Your task to perform on an android device: Play some music on YouTube Image 0: 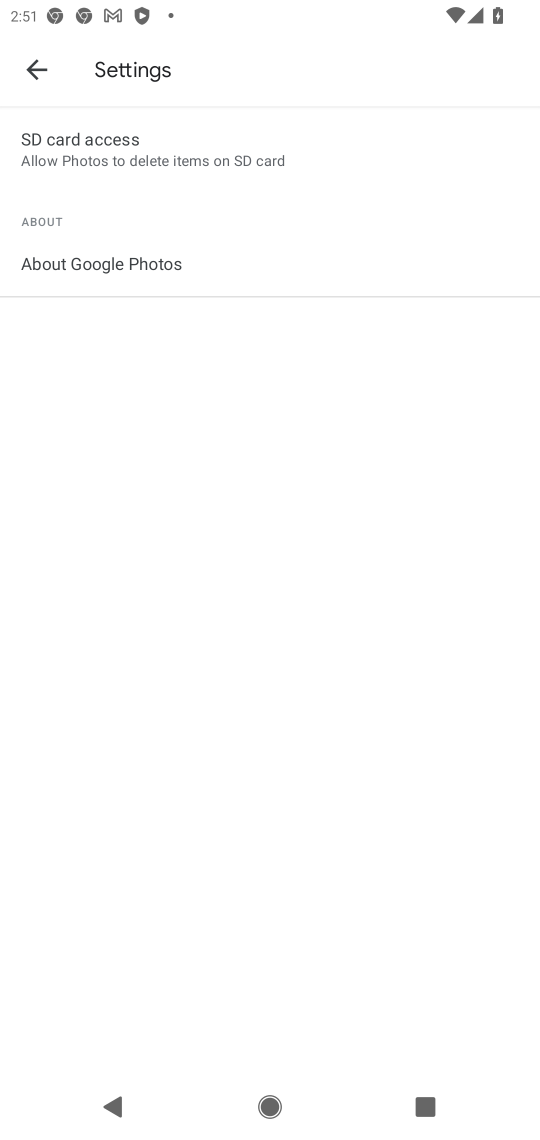
Step 0: press home button
Your task to perform on an android device: Play some music on YouTube Image 1: 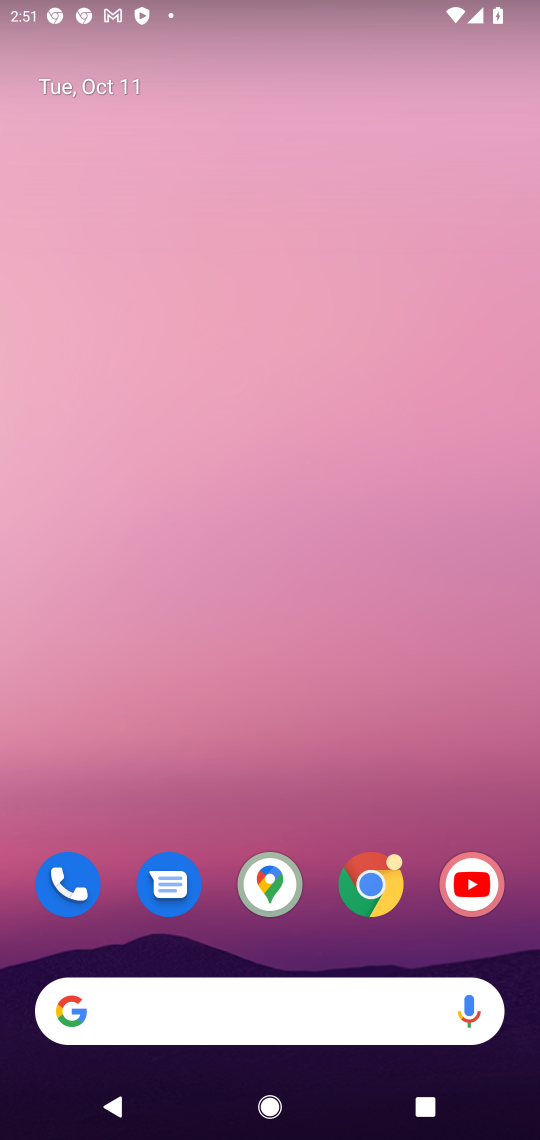
Step 1: click (470, 886)
Your task to perform on an android device: Play some music on YouTube Image 2: 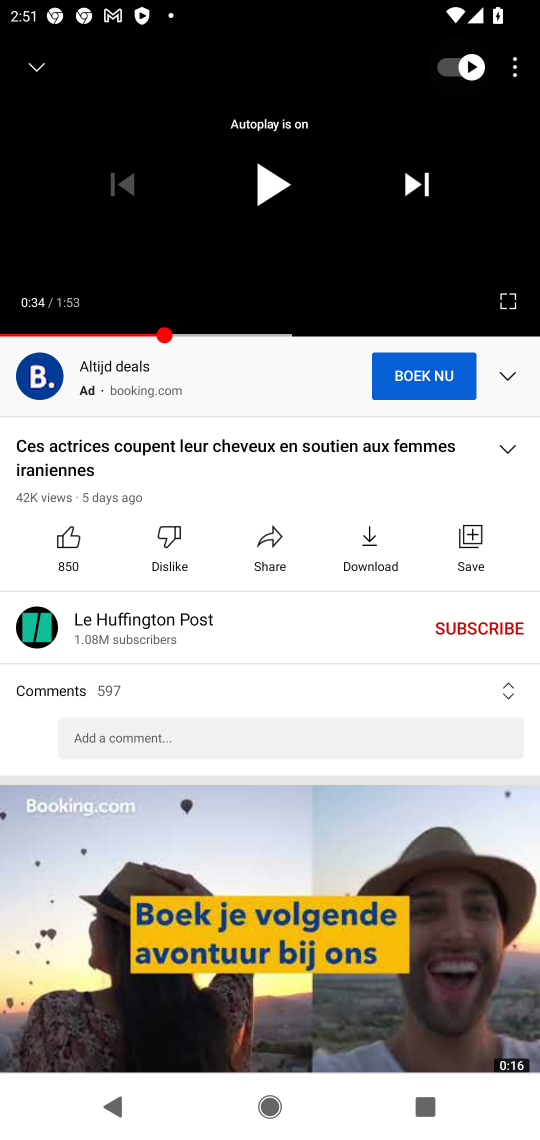
Step 2: press back button
Your task to perform on an android device: Play some music on YouTube Image 3: 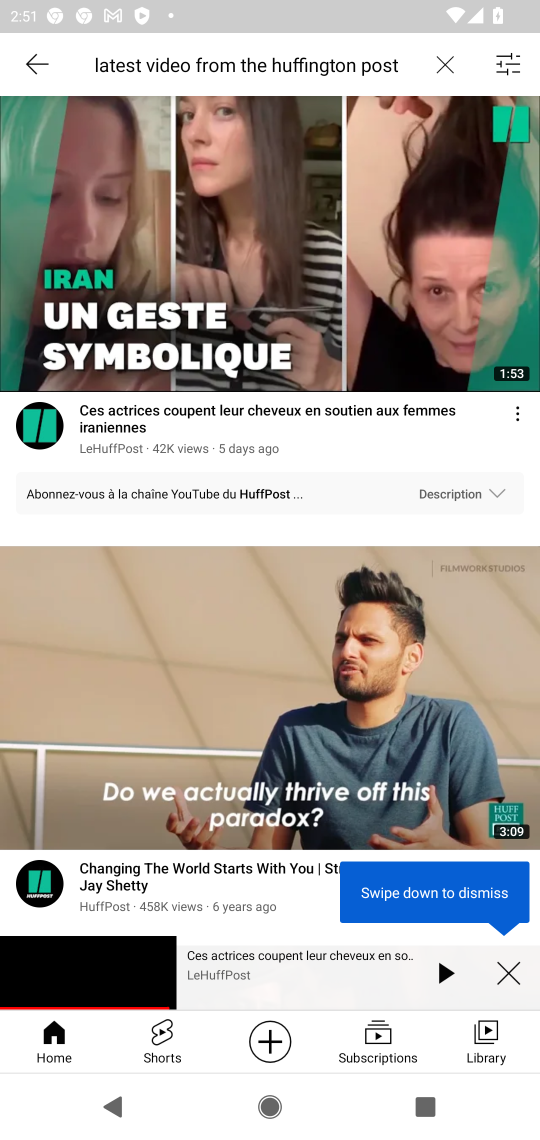
Step 3: click (507, 983)
Your task to perform on an android device: Play some music on YouTube Image 4: 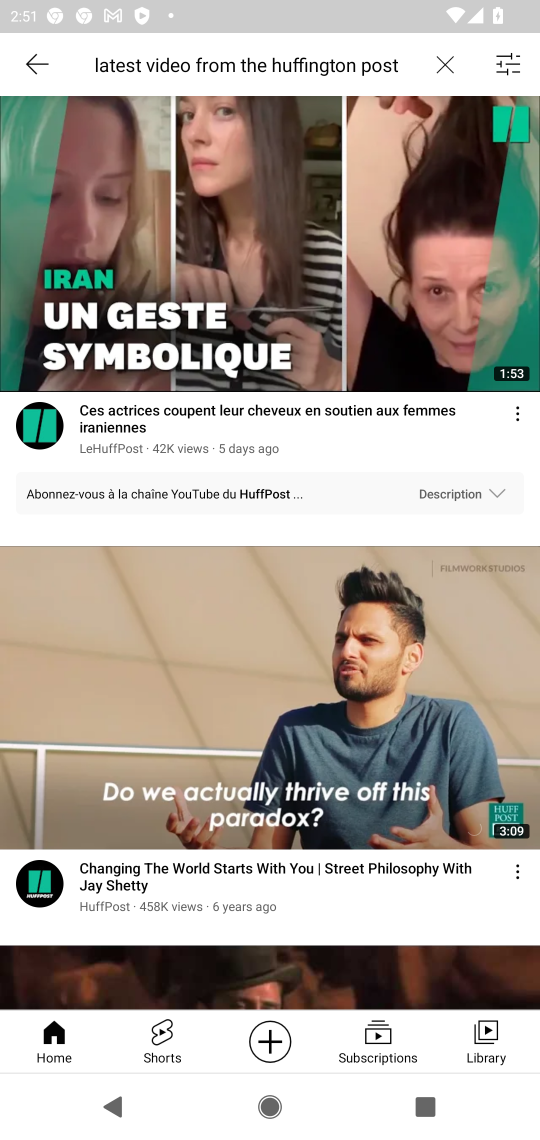
Step 4: click (450, 62)
Your task to perform on an android device: Play some music on YouTube Image 5: 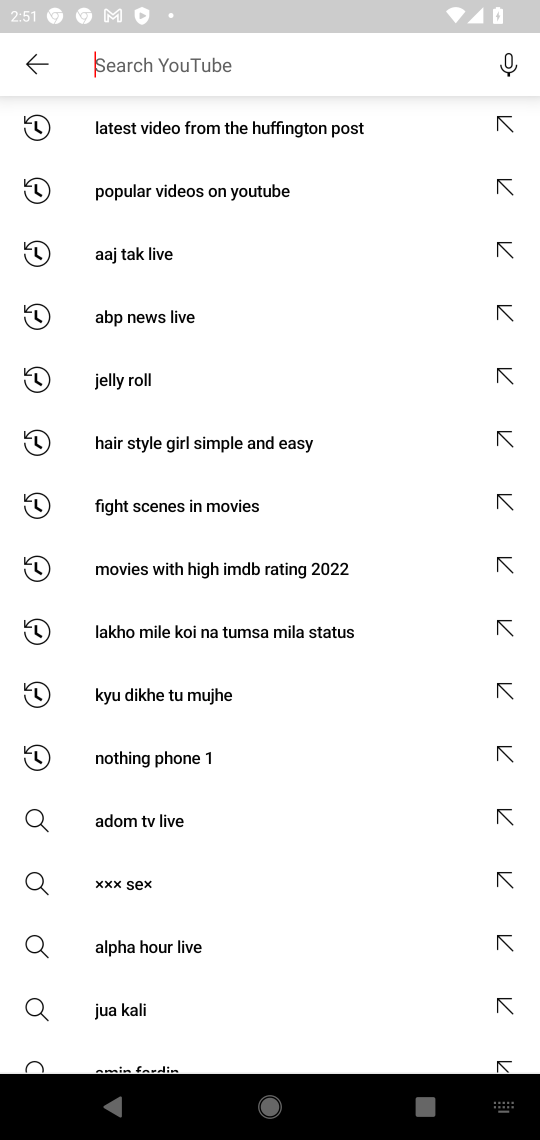
Step 5: click (384, 69)
Your task to perform on an android device: Play some music on YouTube Image 6: 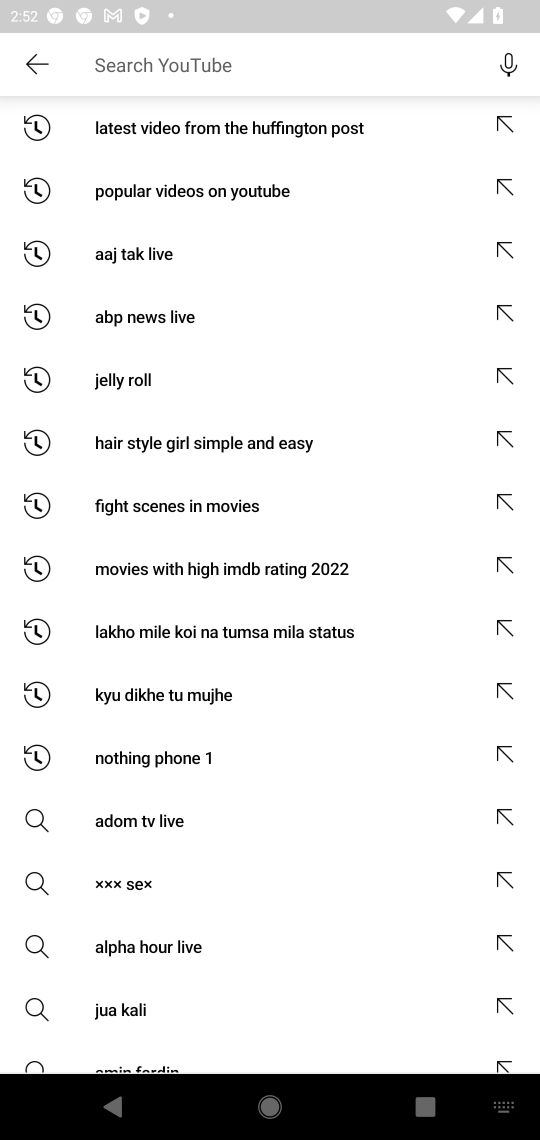
Step 6: type "some music"
Your task to perform on an android device: Play some music on YouTube Image 7: 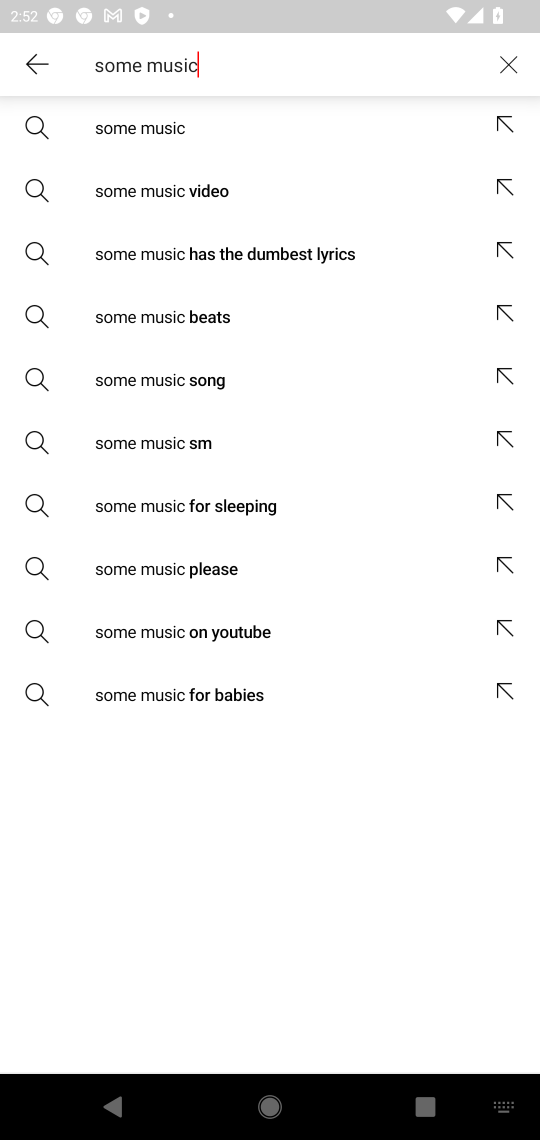
Step 7: click (161, 126)
Your task to perform on an android device: Play some music on YouTube Image 8: 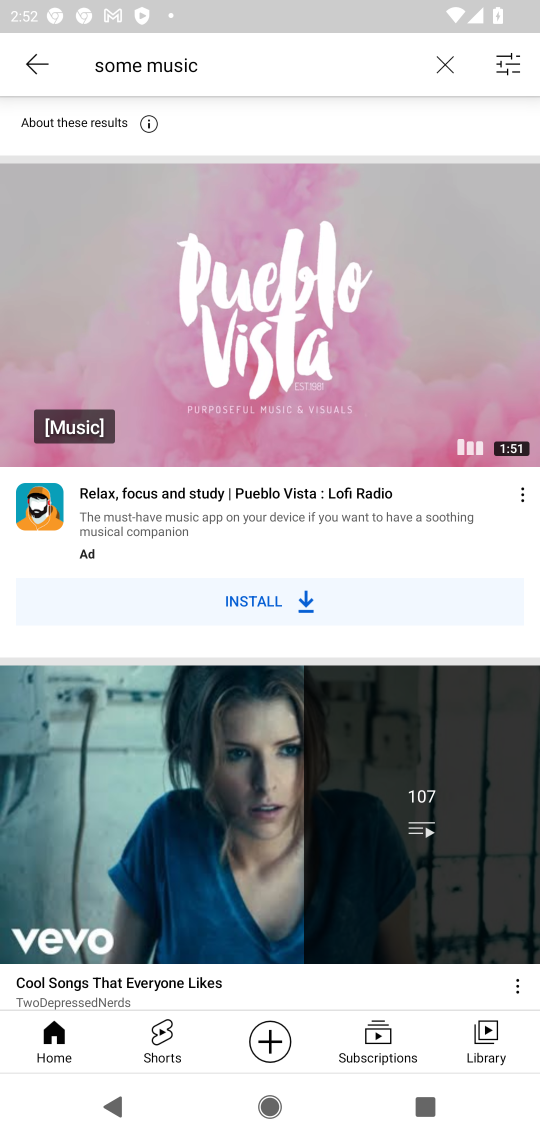
Step 8: drag from (135, 826) to (369, 425)
Your task to perform on an android device: Play some music on YouTube Image 9: 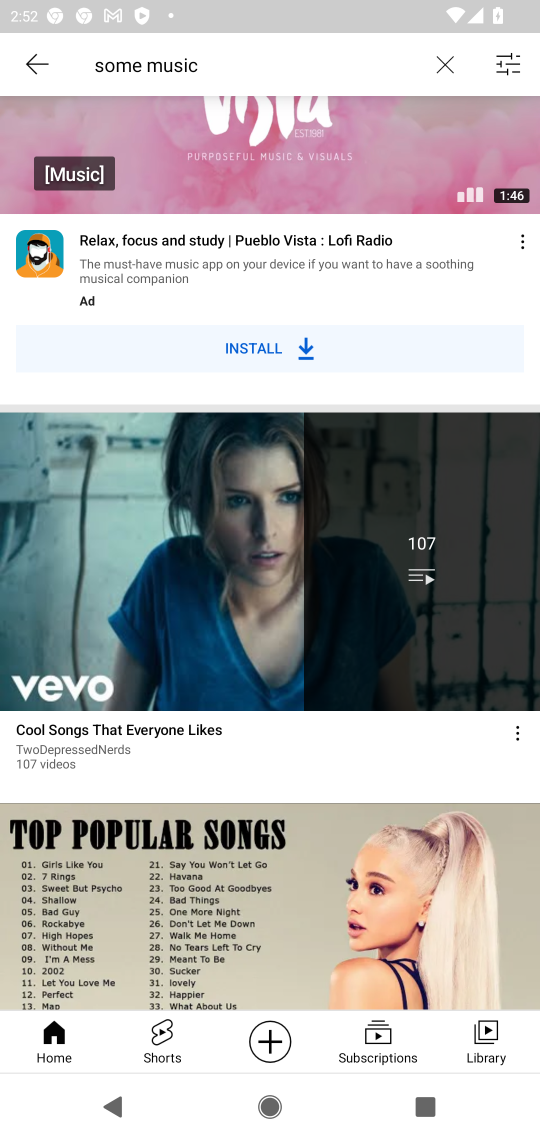
Step 9: drag from (247, 827) to (334, 721)
Your task to perform on an android device: Play some music on YouTube Image 10: 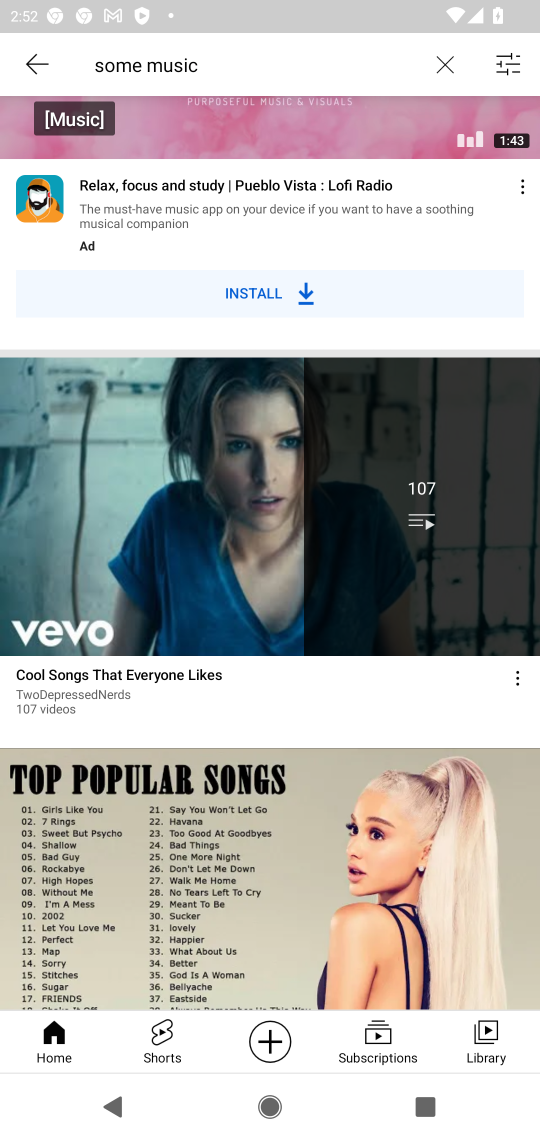
Step 10: click (234, 496)
Your task to perform on an android device: Play some music on YouTube Image 11: 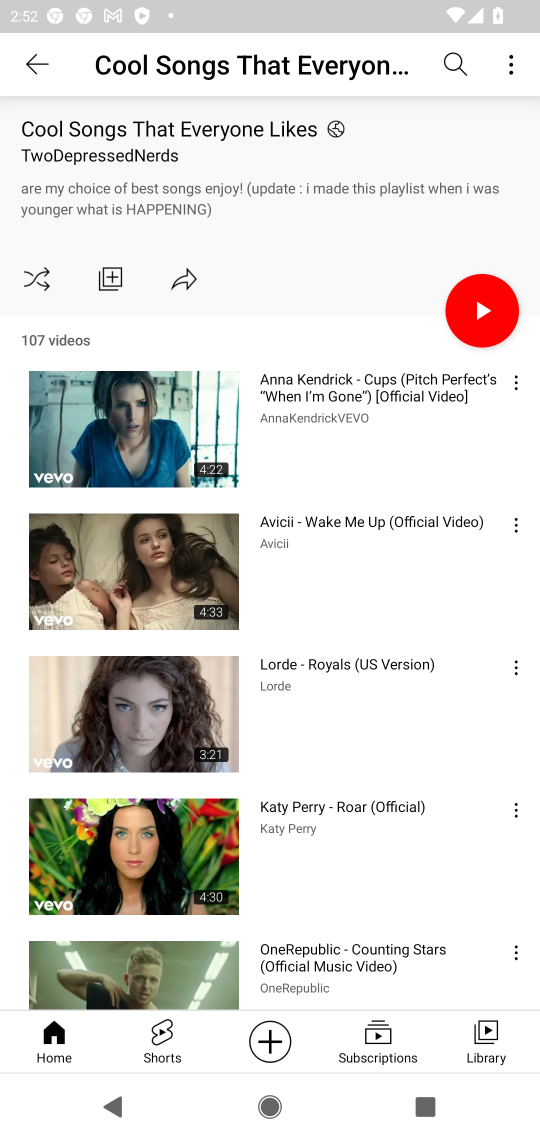
Step 11: click (334, 399)
Your task to perform on an android device: Play some music on YouTube Image 12: 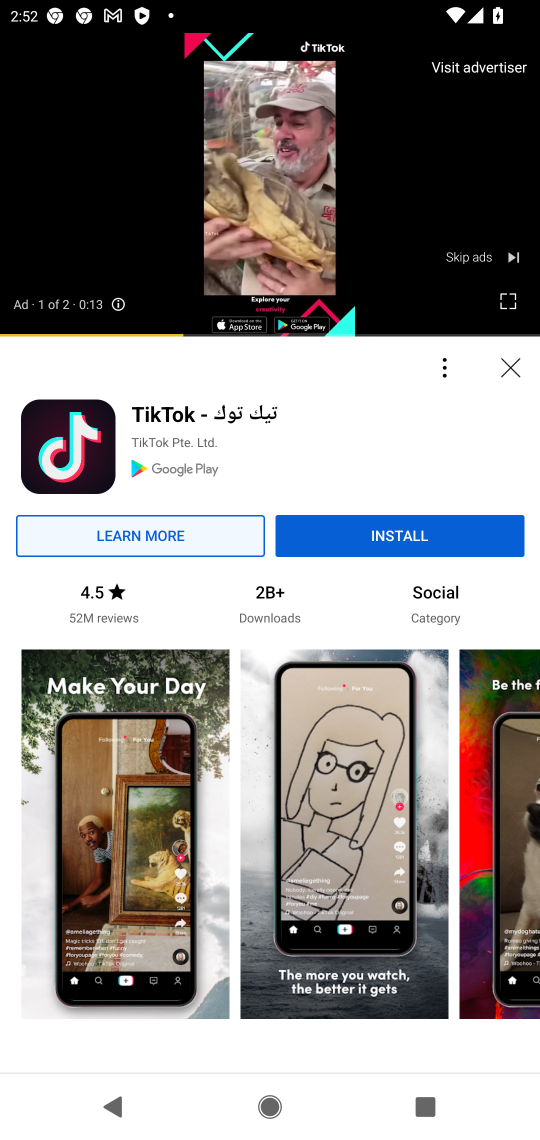
Step 12: click (494, 257)
Your task to perform on an android device: Play some music on YouTube Image 13: 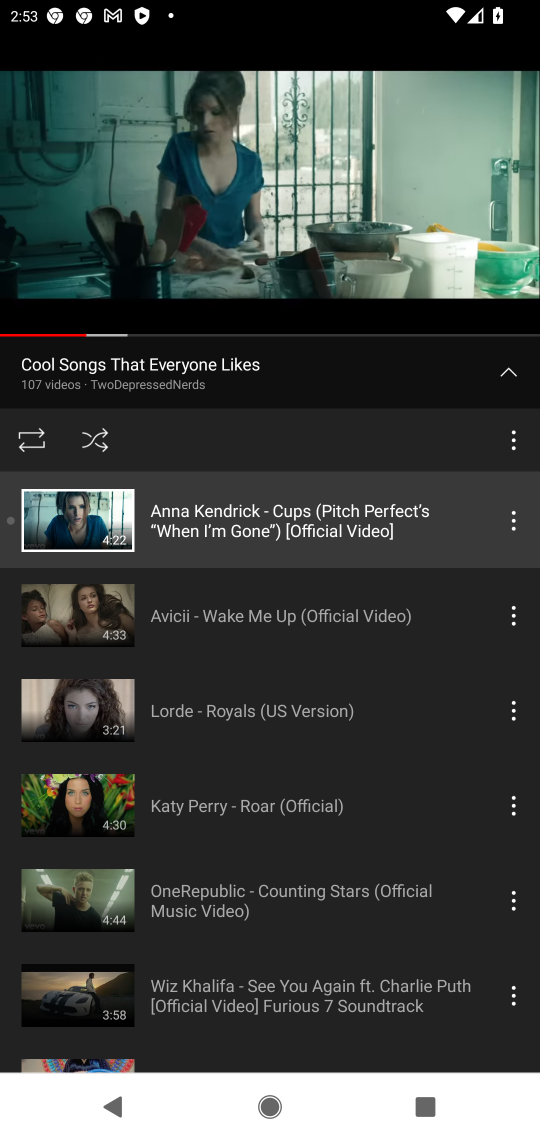
Step 13: task complete